Your task to perform on an android device: What is the news today? Image 0: 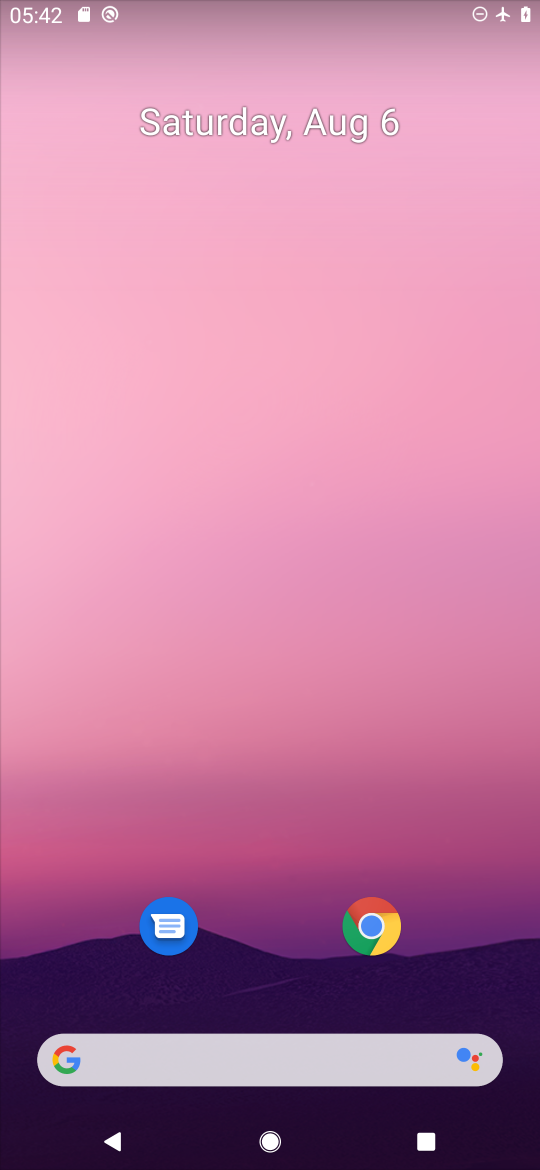
Step 0: drag from (269, 777) to (255, 290)
Your task to perform on an android device: What is the news today? Image 1: 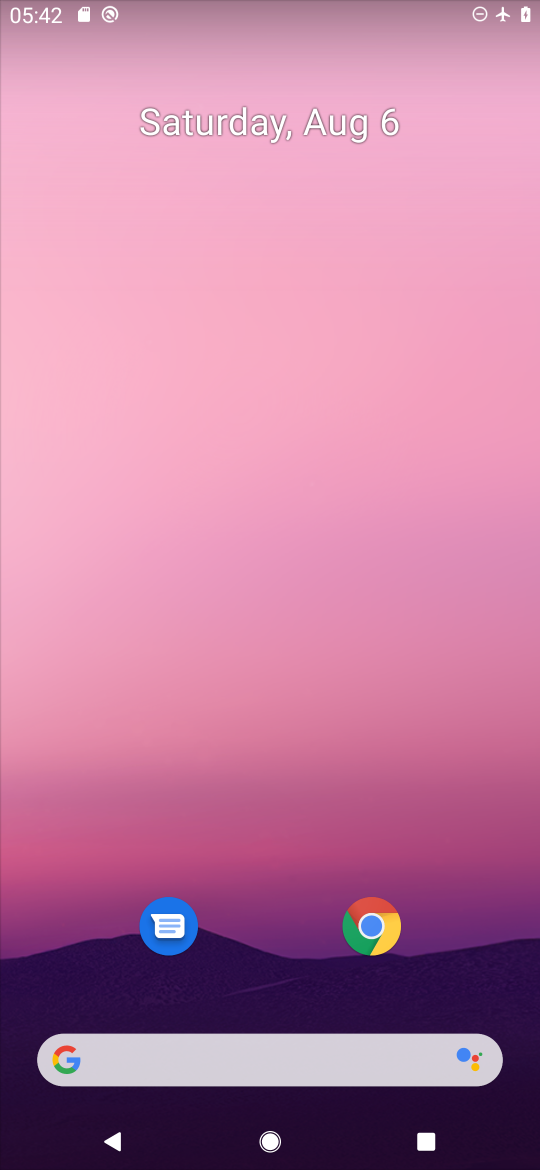
Step 1: drag from (260, 896) to (254, 157)
Your task to perform on an android device: What is the news today? Image 2: 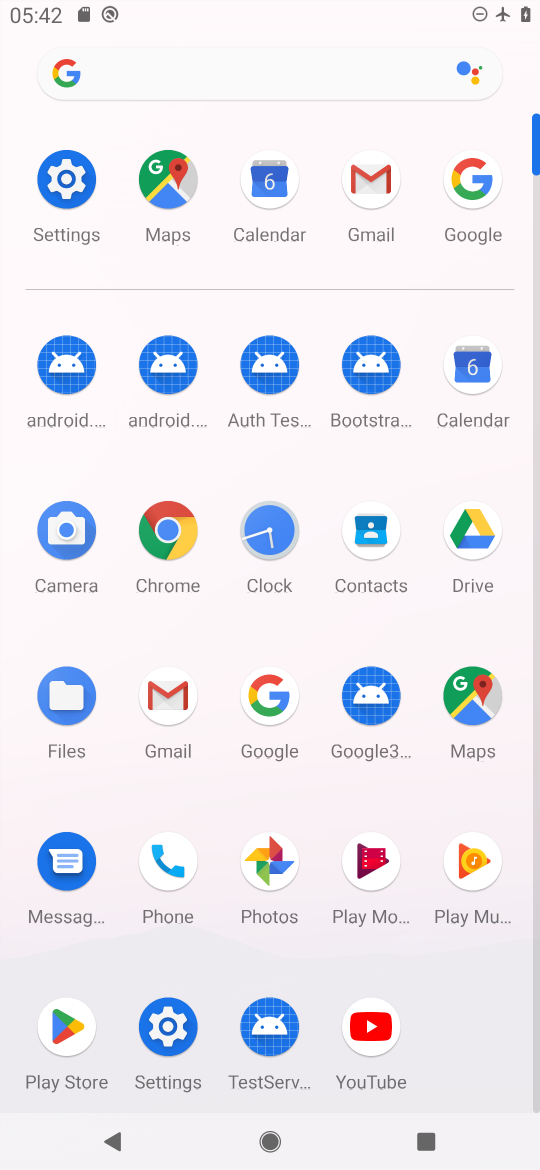
Step 2: click (487, 190)
Your task to perform on an android device: What is the news today? Image 3: 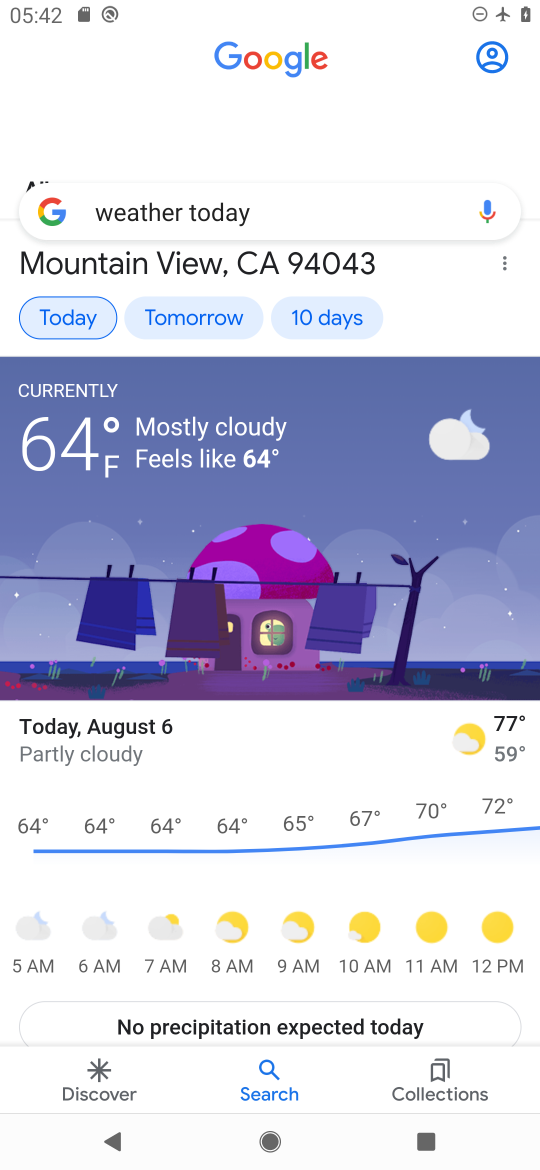
Step 3: click (326, 196)
Your task to perform on an android device: What is the news today? Image 4: 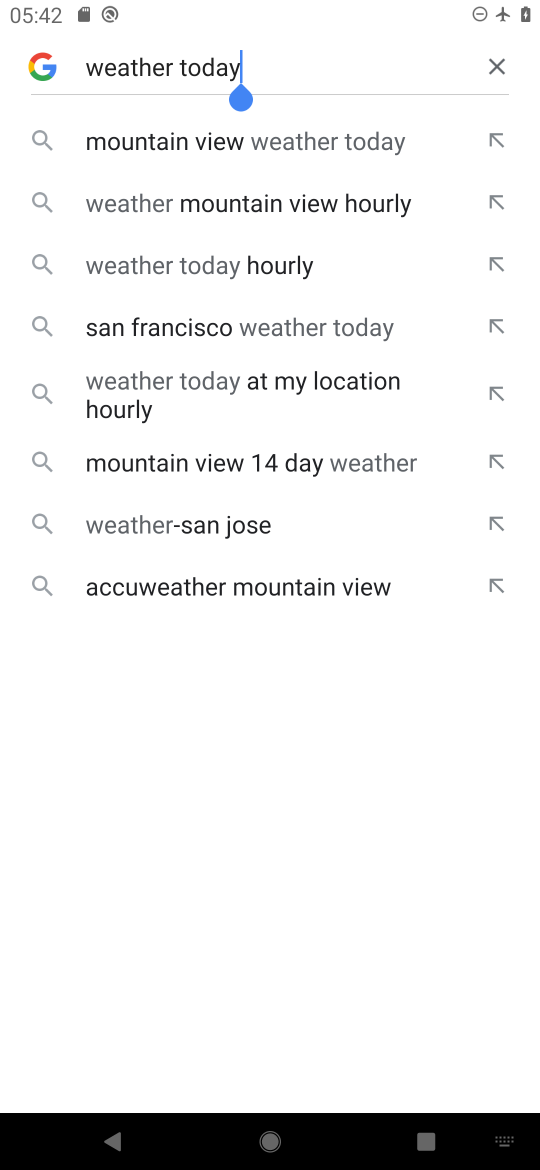
Step 4: click (486, 57)
Your task to perform on an android device: What is the news today? Image 5: 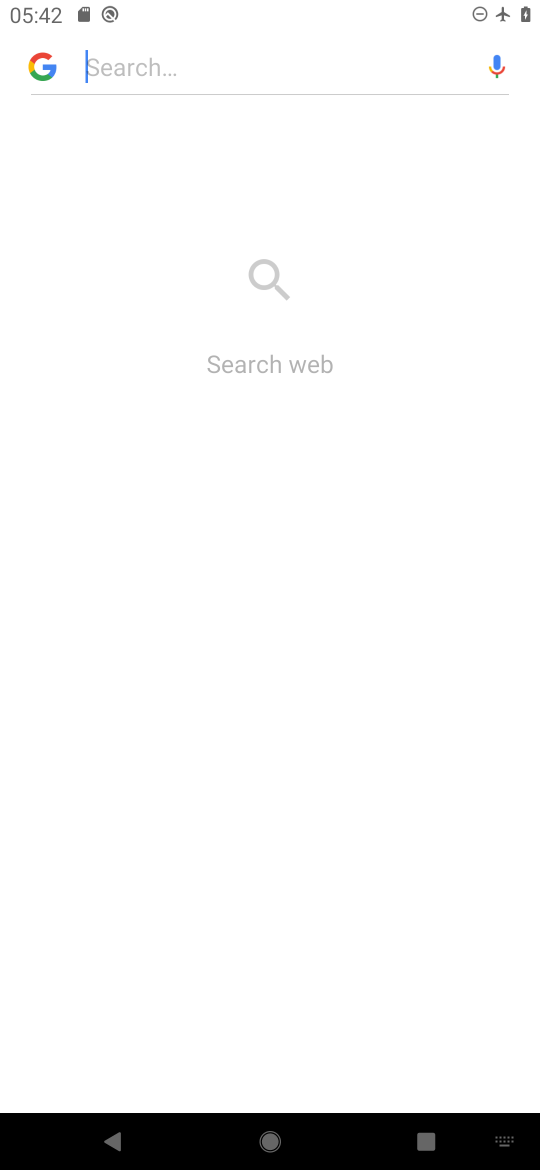
Step 5: type "news today"
Your task to perform on an android device: What is the news today? Image 6: 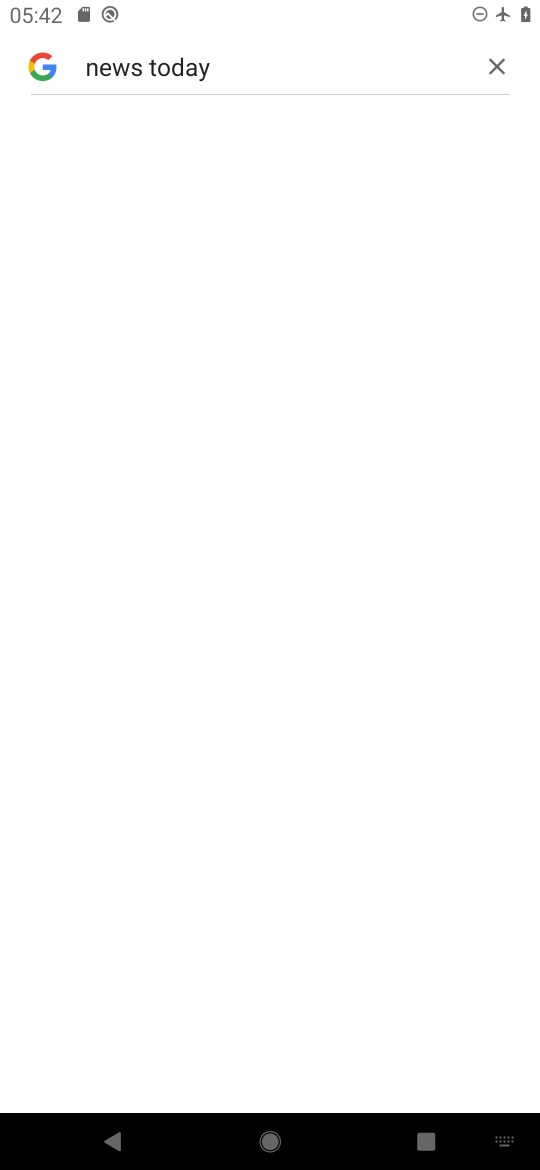
Step 6: task complete